Your task to perform on an android device: snooze an email in the gmail app Image 0: 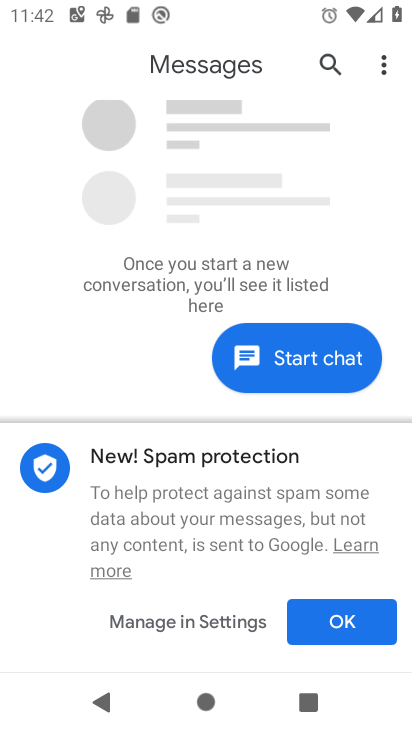
Step 0: press home button
Your task to perform on an android device: snooze an email in the gmail app Image 1: 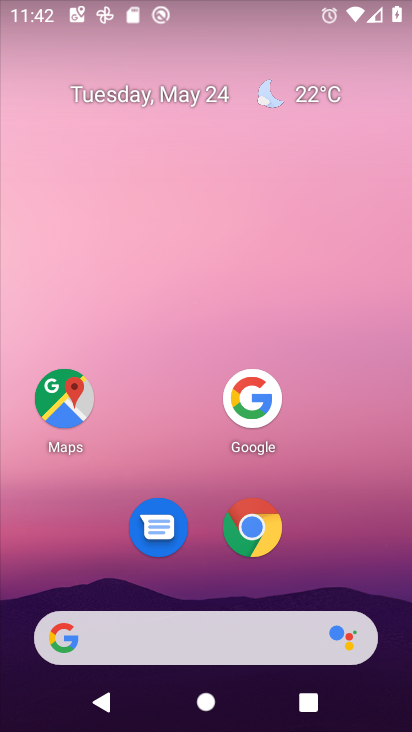
Step 1: drag from (181, 626) to (326, 239)
Your task to perform on an android device: snooze an email in the gmail app Image 2: 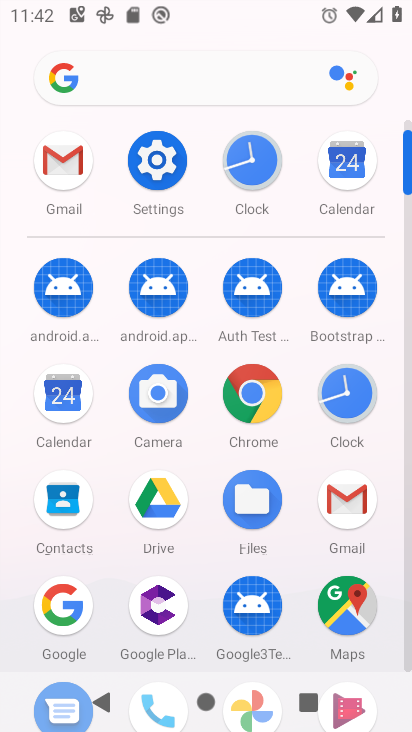
Step 2: click (55, 156)
Your task to perform on an android device: snooze an email in the gmail app Image 3: 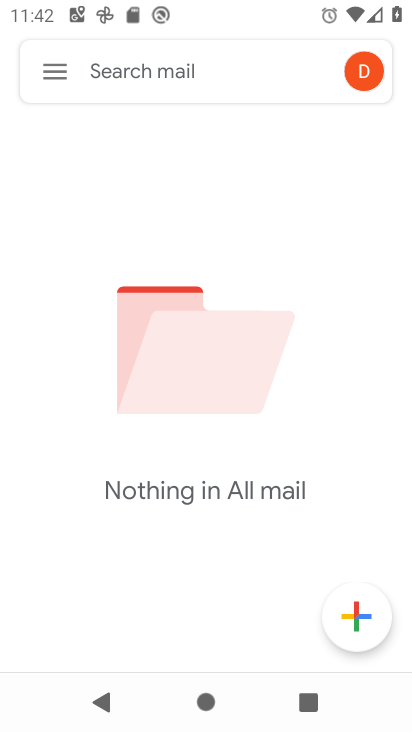
Step 3: task complete